Your task to perform on an android device: turn off notifications settings in the gmail app Image 0: 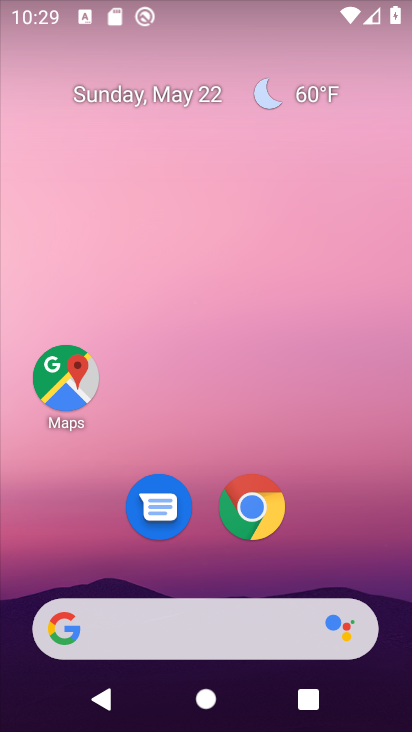
Step 0: drag from (210, 565) to (210, 101)
Your task to perform on an android device: turn off notifications settings in the gmail app Image 1: 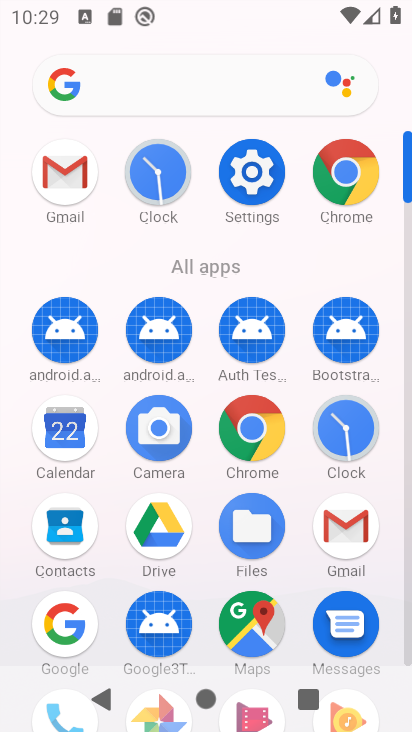
Step 1: click (343, 540)
Your task to perform on an android device: turn off notifications settings in the gmail app Image 2: 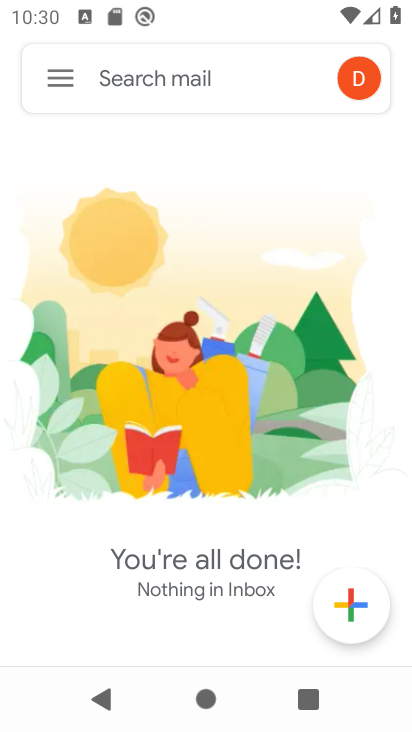
Step 2: click (38, 75)
Your task to perform on an android device: turn off notifications settings in the gmail app Image 3: 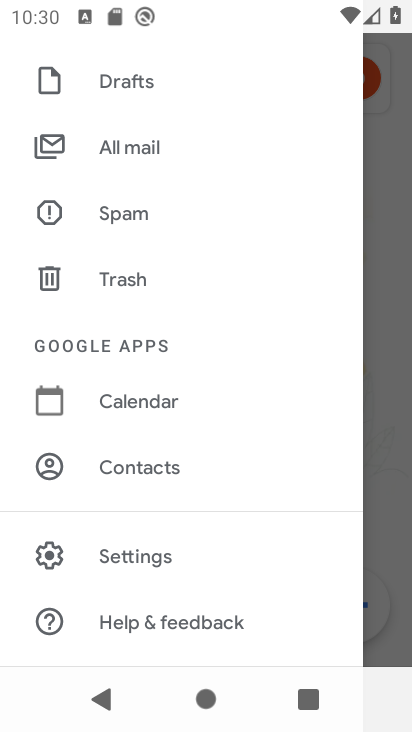
Step 3: click (120, 563)
Your task to perform on an android device: turn off notifications settings in the gmail app Image 4: 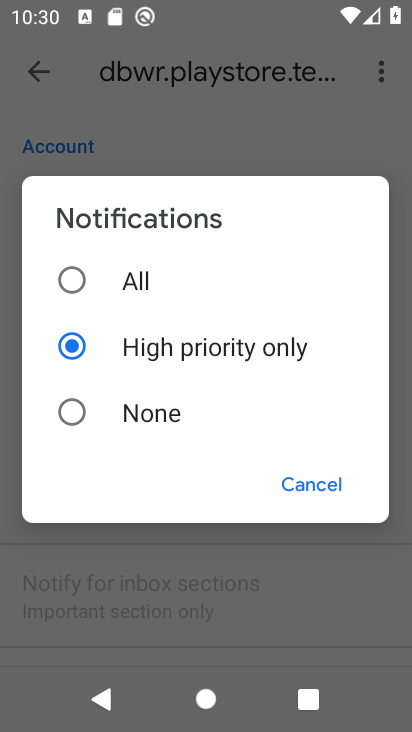
Step 4: click (82, 401)
Your task to perform on an android device: turn off notifications settings in the gmail app Image 5: 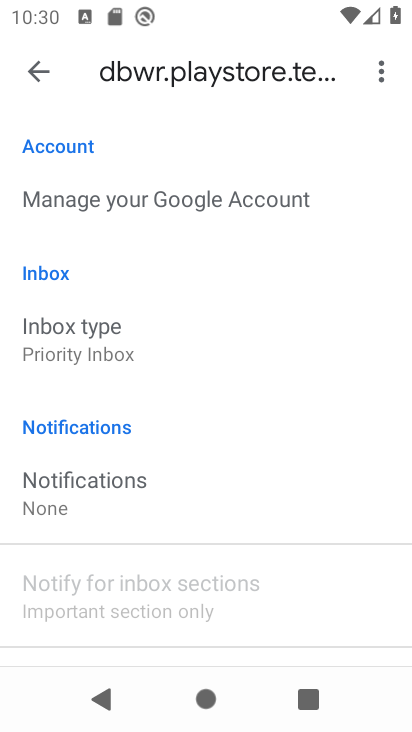
Step 5: task complete